Your task to perform on an android device: Open Google Chrome and click the shortcut for Amazon.com Image 0: 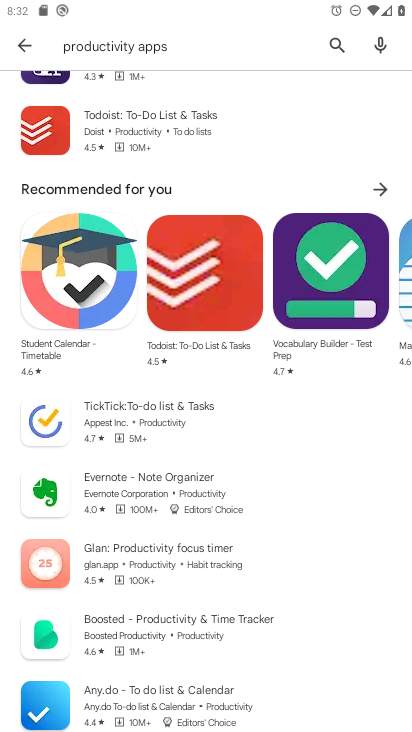
Step 0: press home button
Your task to perform on an android device: Open Google Chrome and click the shortcut for Amazon.com Image 1: 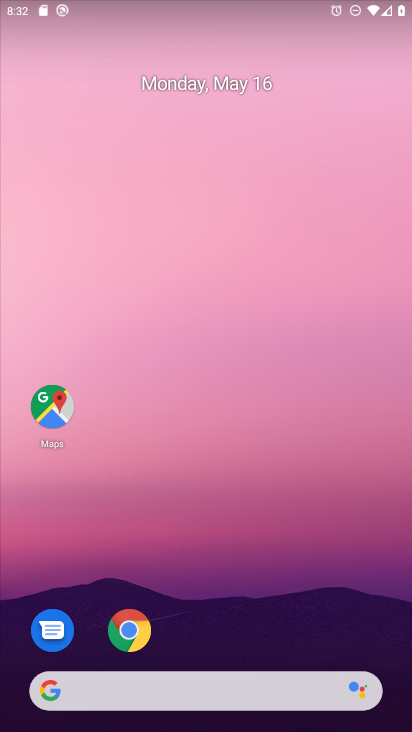
Step 1: click (121, 630)
Your task to perform on an android device: Open Google Chrome and click the shortcut for Amazon.com Image 2: 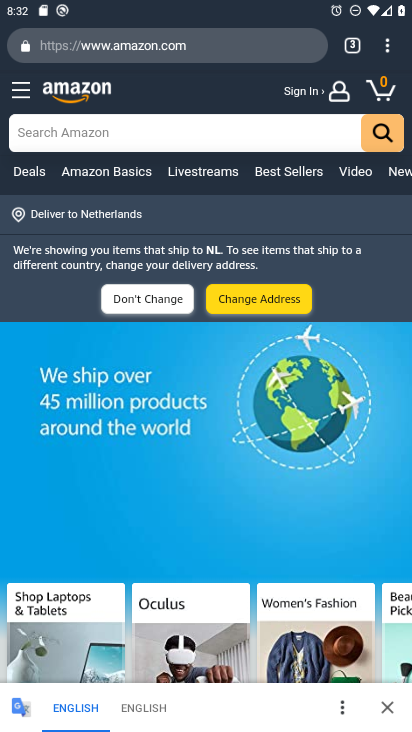
Step 2: task complete